Your task to perform on an android device: turn notification dots off Image 0: 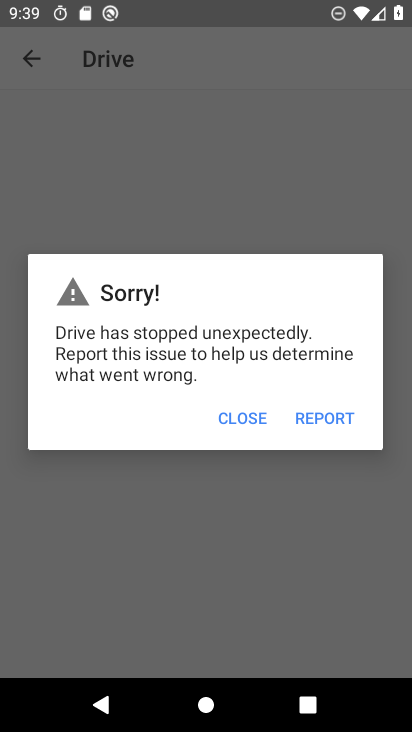
Step 0: press home button
Your task to perform on an android device: turn notification dots off Image 1: 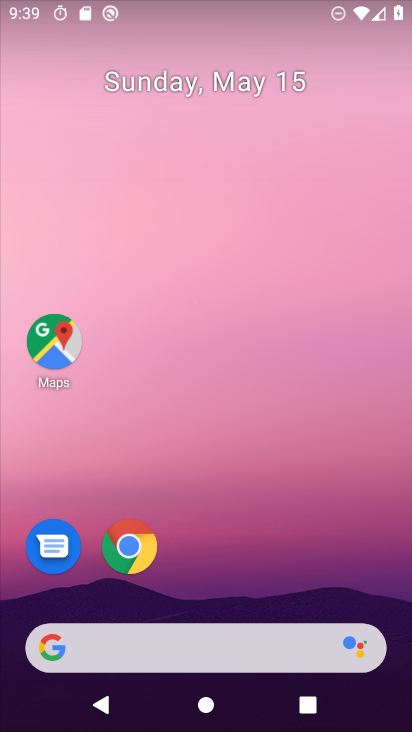
Step 1: drag from (270, 533) to (318, 74)
Your task to perform on an android device: turn notification dots off Image 2: 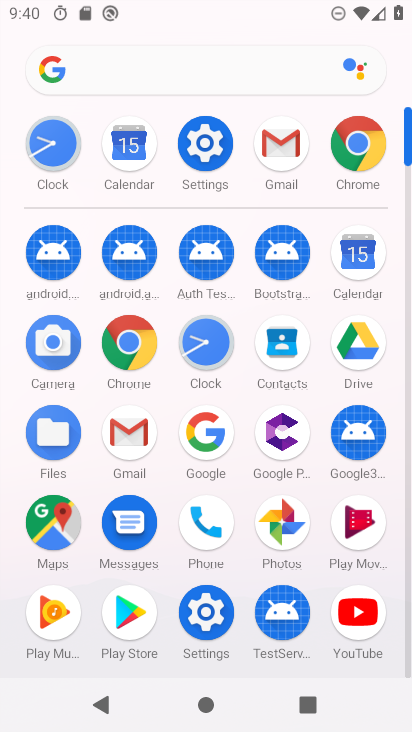
Step 2: click (205, 148)
Your task to perform on an android device: turn notification dots off Image 3: 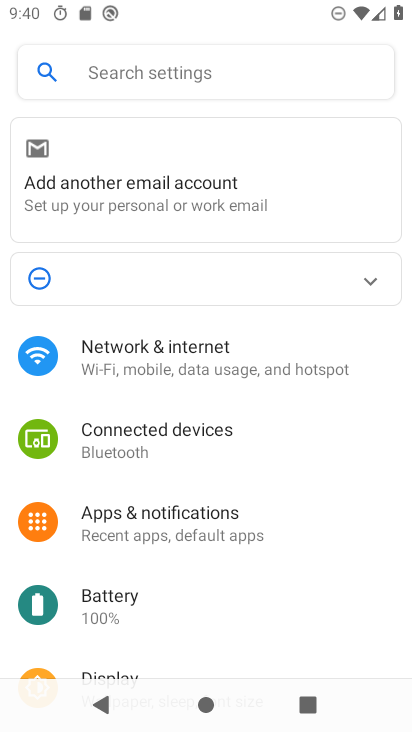
Step 3: click (170, 529)
Your task to perform on an android device: turn notification dots off Image 4: 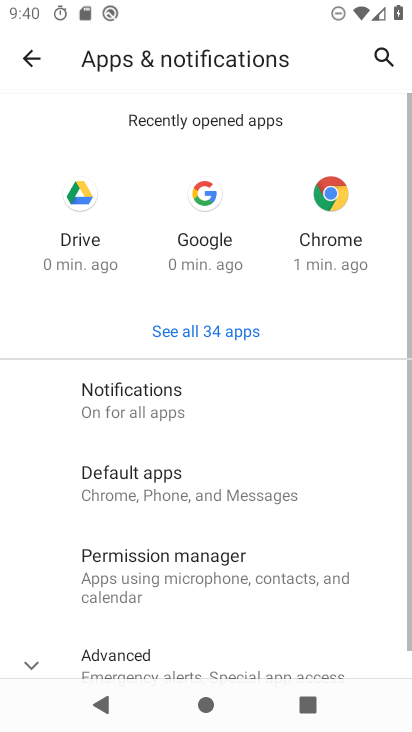
Step 4: click (220, 399)
Your task to perform on an android device: turn notification dots off Image 5: 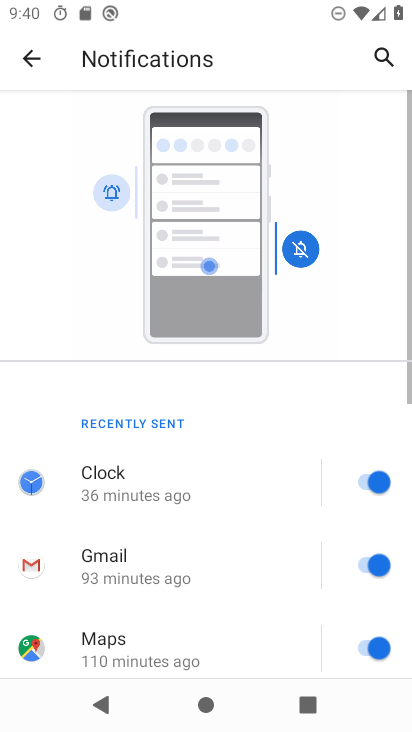
Step 5: drag from (237, 528) to (274, 95)
Your task to perform on an android device: turn notification dots off Image 6: 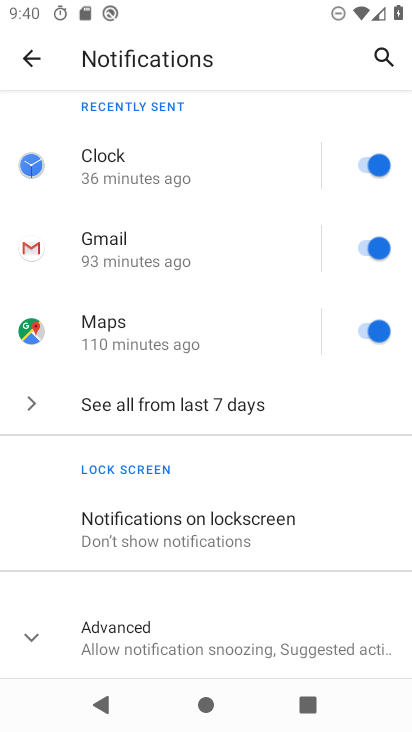
Step 6: click (33, 632)
Your task to perform on an android device: turn notification dots off Image 7: 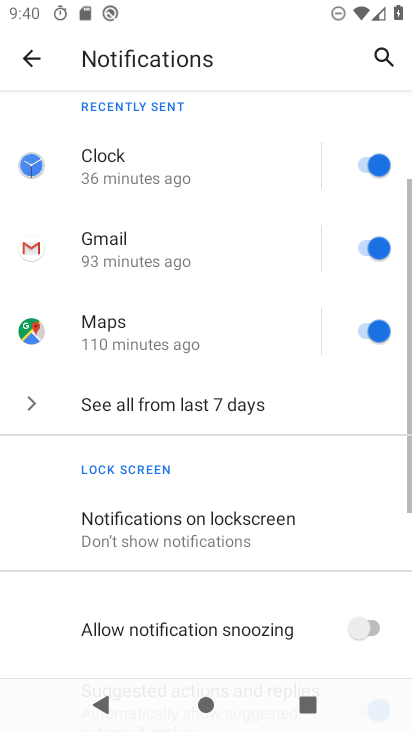
Step 7: drag from (212, 550) to (281, 107)
Your task to perform on an android device: turn notification dots off Image 8: 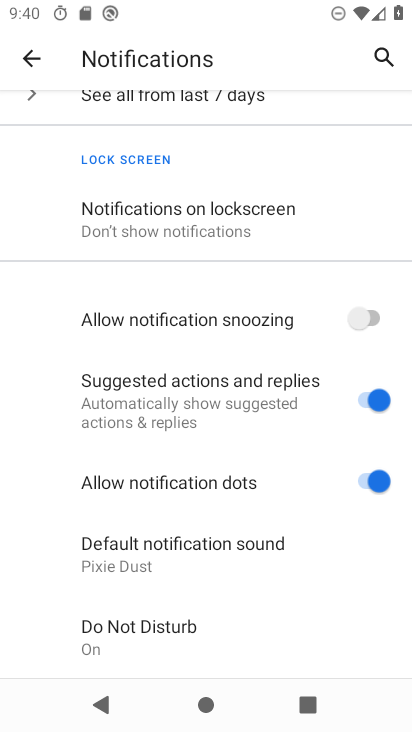
Step 8: click (362, 470)
Your task to perform on an android device: turn notification dots off Image 9: 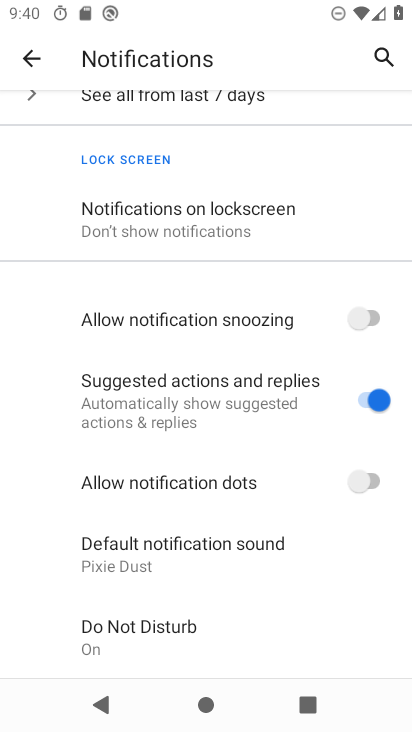
Step 9: task complete